Your task to perform on an android device: check out phone information Image 0: 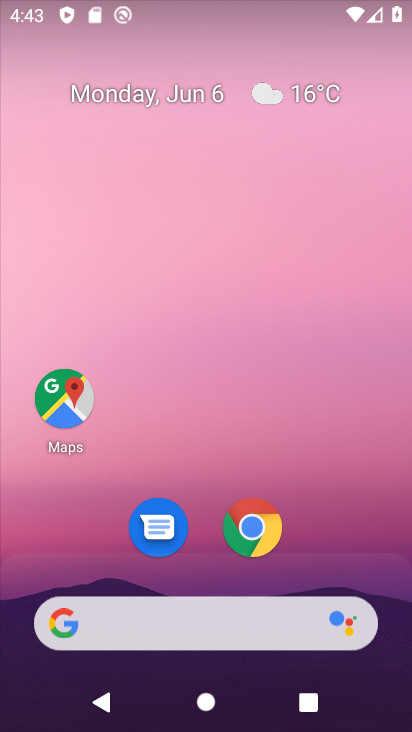
Step 0: drag from (104, 607) to (217, 156)
Your task to perform on an android device: check out phone information Image 1: 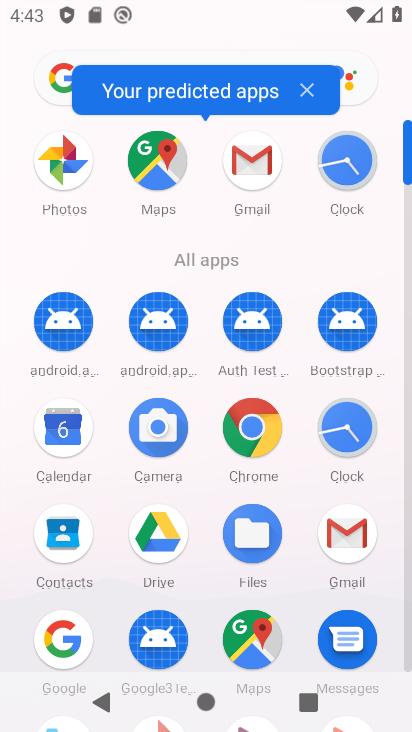
Step 1: drag from (207, 588) to (299, 275)
Your task to perform on an android device: check out phone information Image 2: 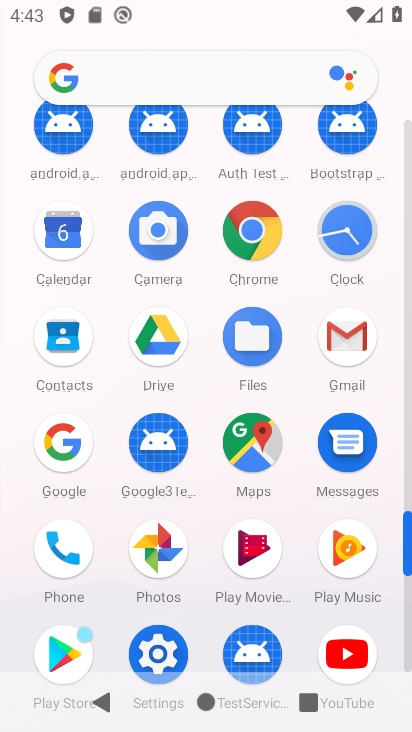
Step 2: click (164, 648)
Your task to perform on an android device: check out phone information Image 3: 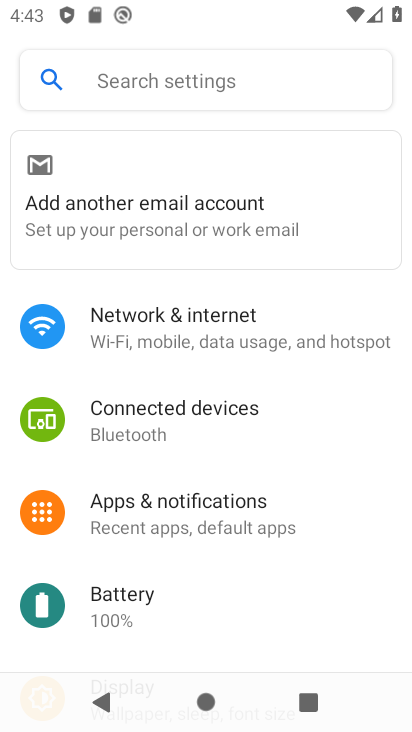
Step 3: drag from (137, 560) to (307, 159)
Your task to perform on an android device: check out phone information Image 4: 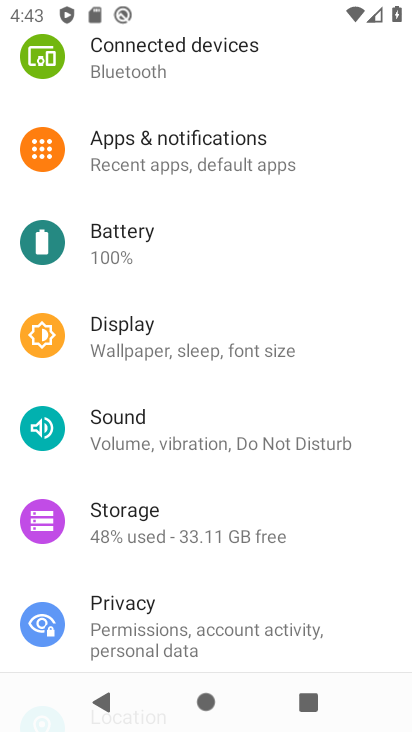
Step 4: drag from (178, 565) to (313, 182)
Your task to perform on an android device: check out phone information Image 5: 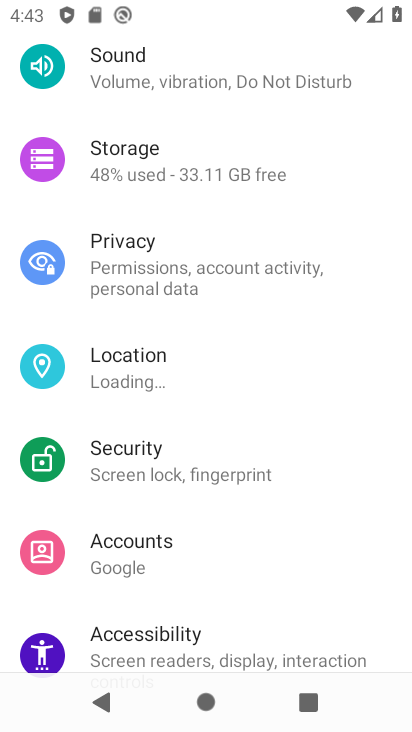
Step 5: drag from (192, 646) to (342, 240)
Your task to perform on an android device: check out phone information Image 6: 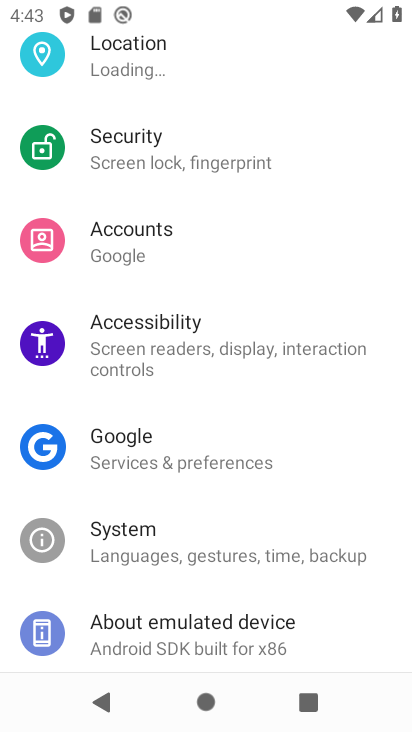
Step 6: click (160, 634)
Your task to perform on an android device: check out phone information Image 7: 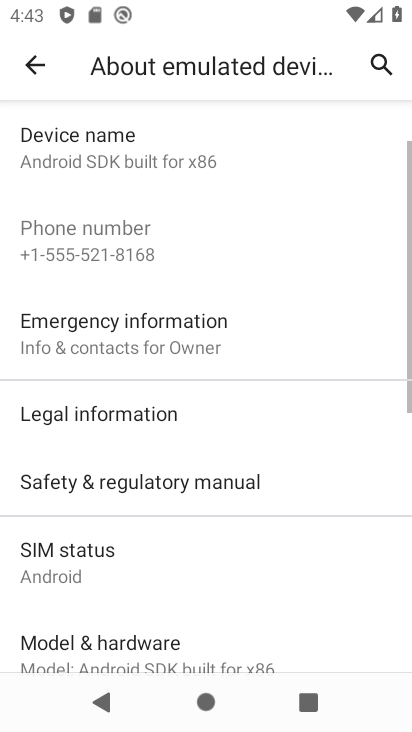
Step 7: task complete